Your task to perform on an android device: See recent photos Image 0: 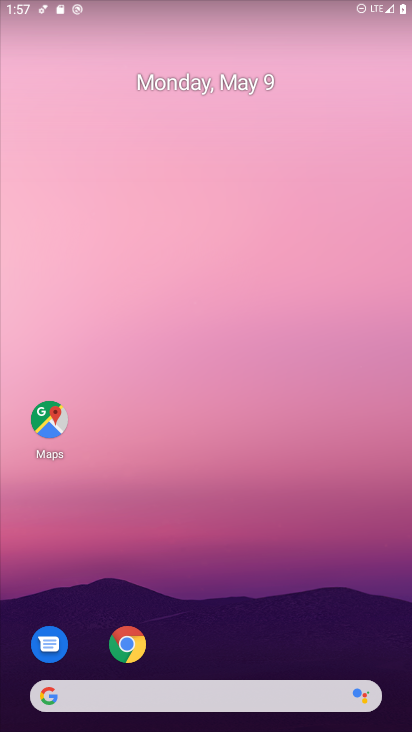
Step 0: drag from (171, 212) to (165, 137)
Your task to perform on an android device: See recent photos Image 1: 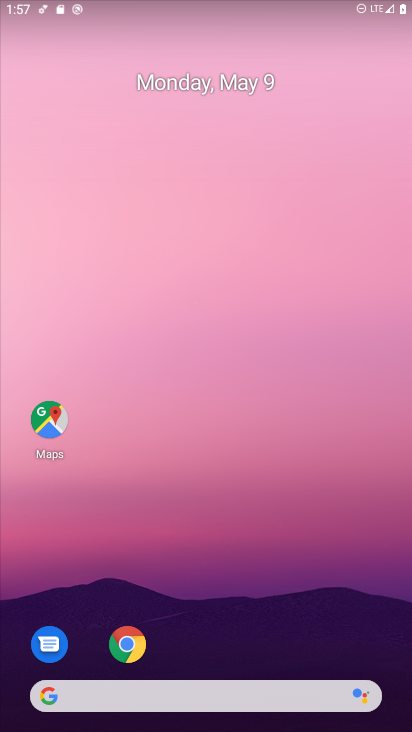
Step 1: drag from (277, 114) to (276, 76)
Your task to perform on an android device: See recent photos Image 2: 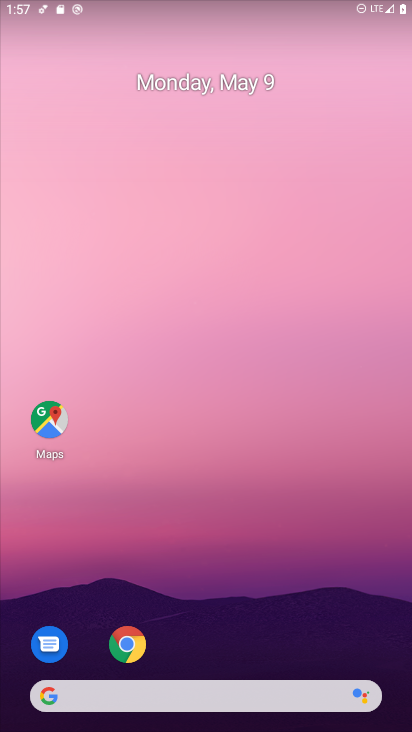
Step 2: click (276, 76)
Your task to perform on an android device: See recent photos Image 3: 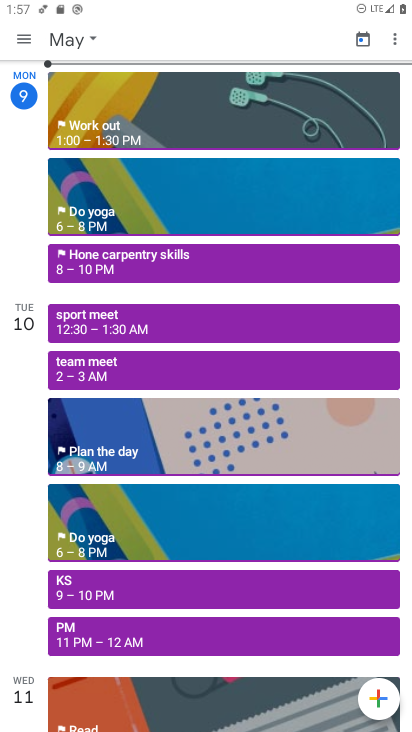
Step 3: press home button
Your task to perform on an android device: See recent photos Image 4: 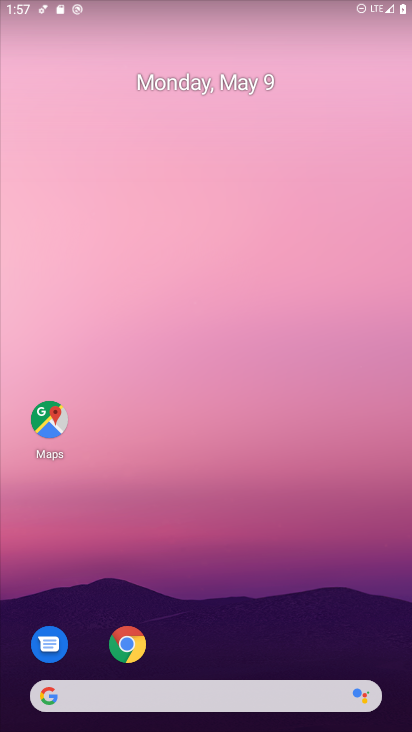
Step 4: drag from (266, 650) to (284, 208)
Your task to perform on an android device: See recent photos Image 5: 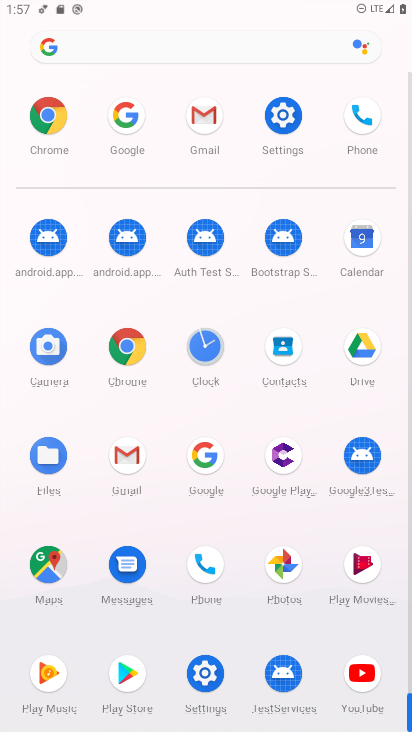
Step 5: click (284, 595)
Your task to perform on an android device: See recent photos Image 6: 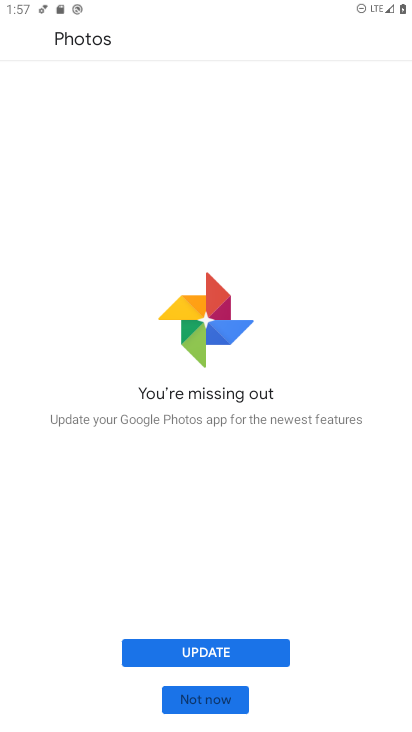
Step 6: click (181, 706)
Your task to perform on an android device: See recent photos Image 7: 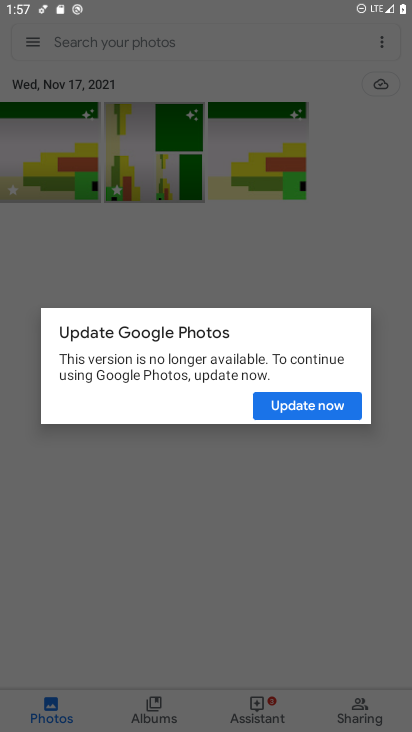
Step 7: click (296, 405)
Your task to perform on an android device: See recent photos Image 8: 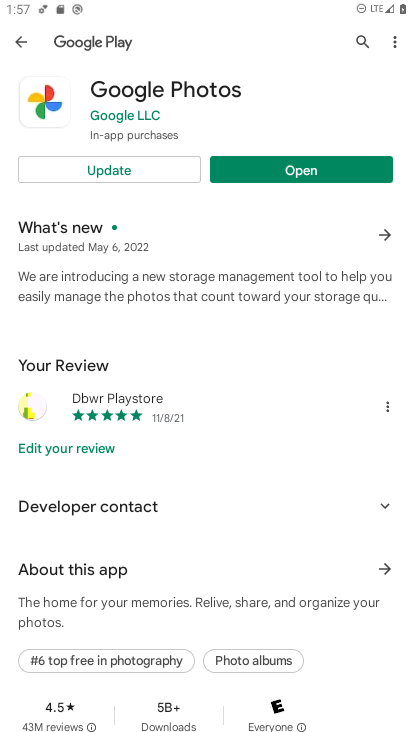
Step 8: click (141, 171)
Your task to perform on an android device: See recent photos Image 9: 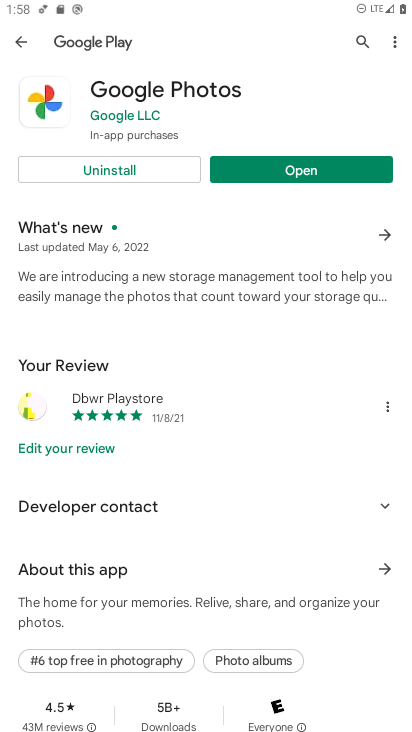
Step 9: click (305, 183)
Your task to perform on an android device: See recent photos Image 10: 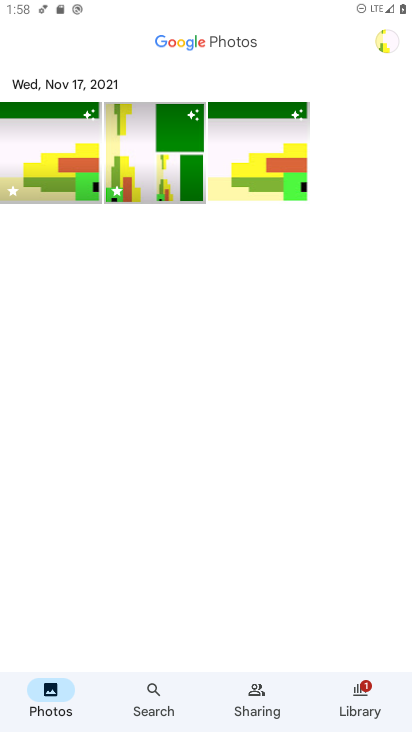
Step 10: click (367, 696)
Your task to perform on an android device: See recent photos Image 11: 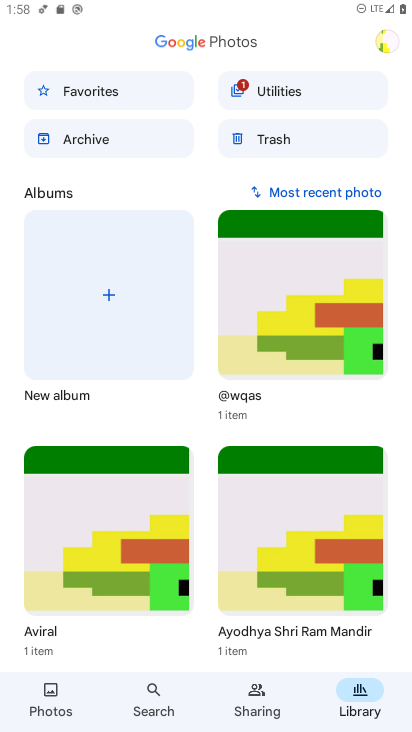
Step 11: task complete